Your task to perform on an android device: uninstall "Google Find My Device" Image 0: 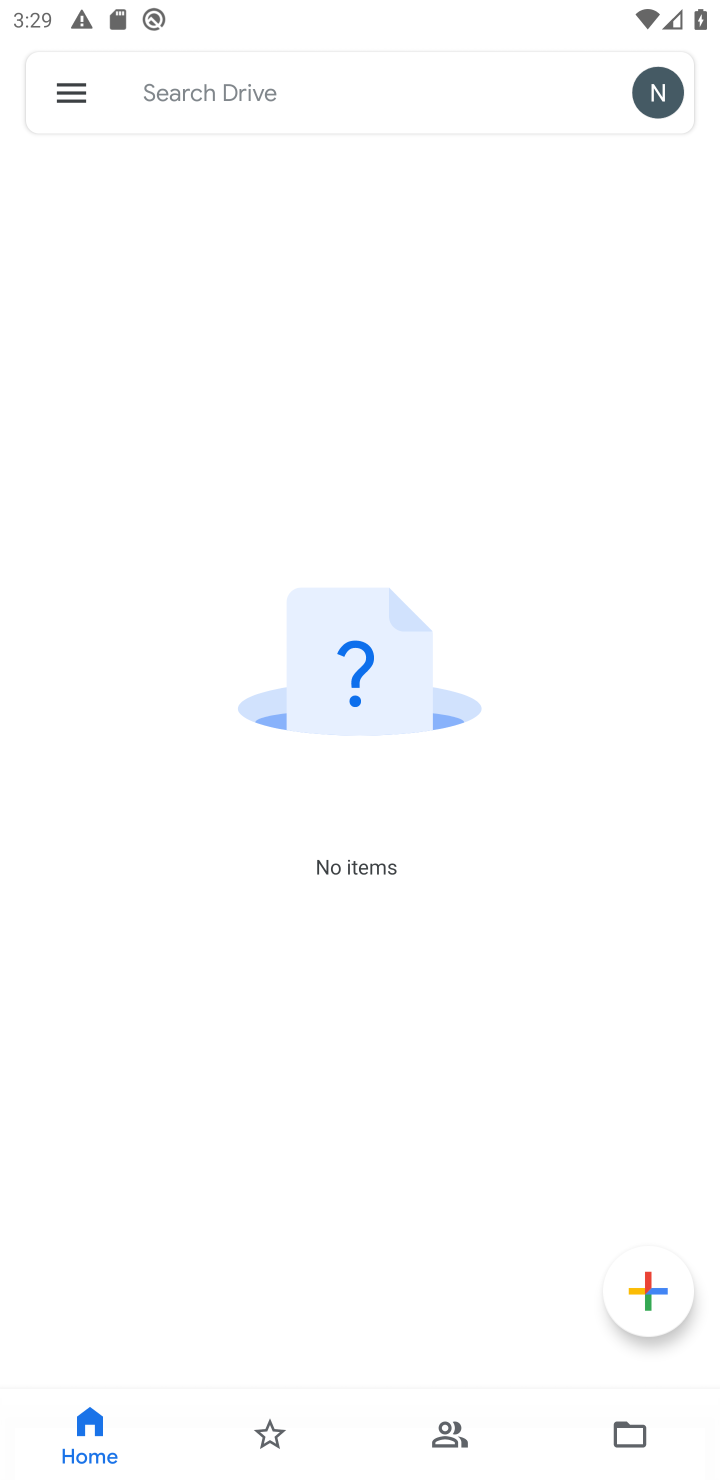
Step 0: press home button
Your task to perform on an android device: uninstall "Google Find My Device" Image 1: 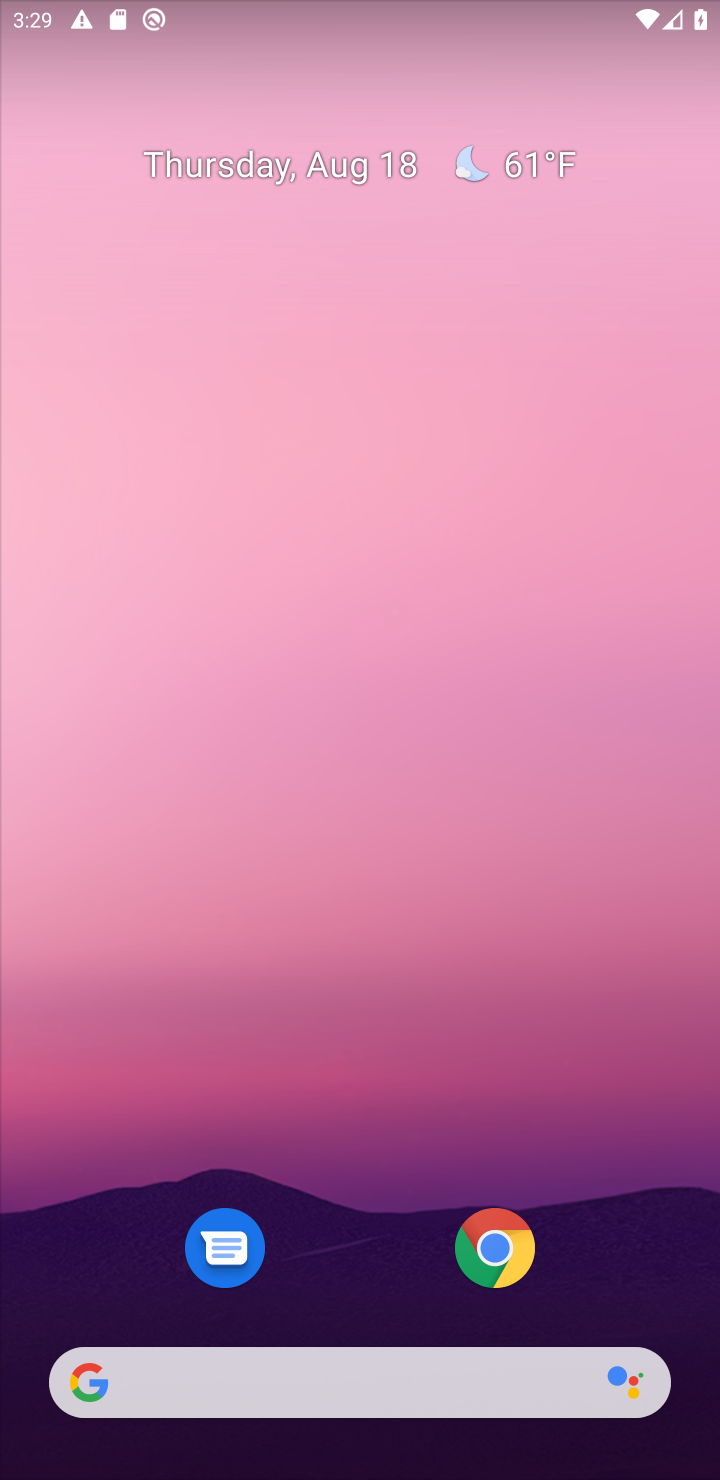
Step 1: click (366, 238)
Your task to perform on an android device: uninstall "Google Find My Device" Image 2: 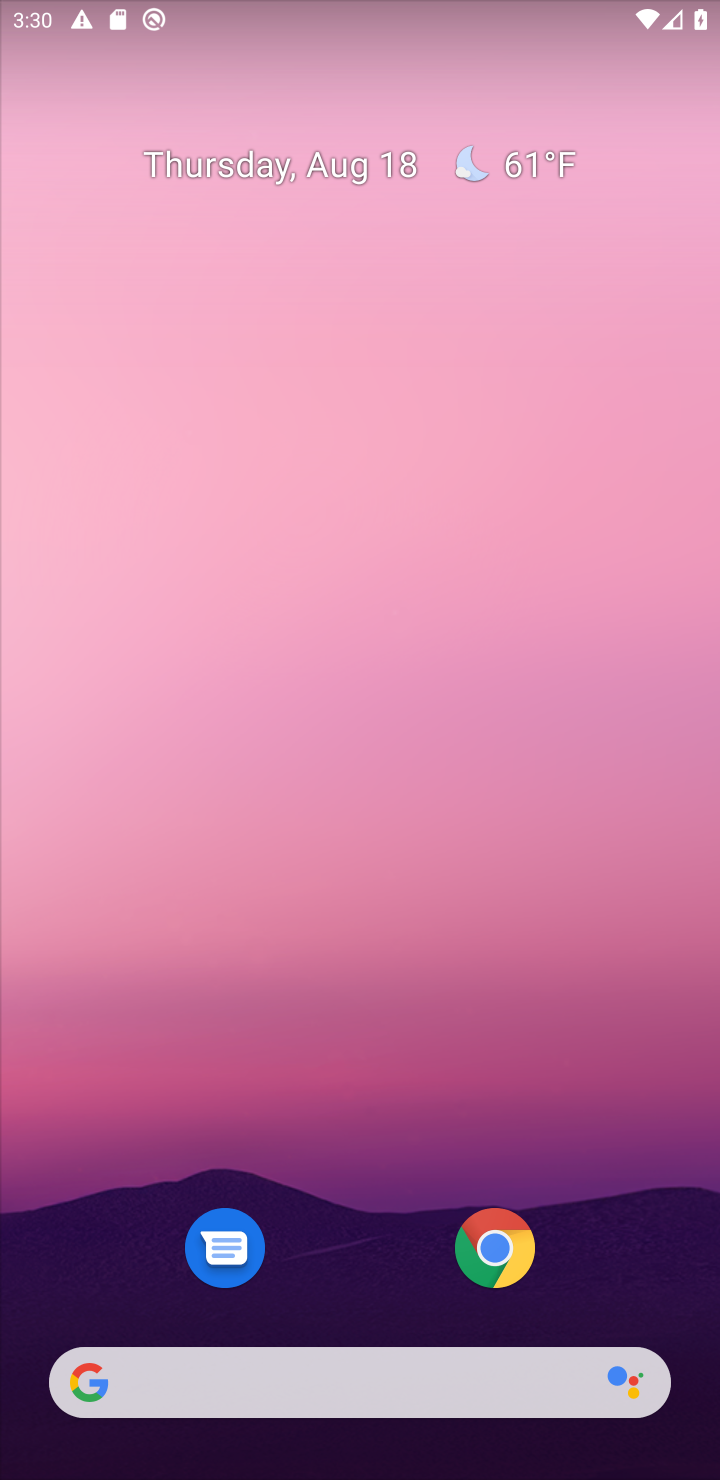
Step 2: drag from (343, 1310) to (204, 211)
Your task to perform on an android device: uninstall "Google Find My Device" Image 3: 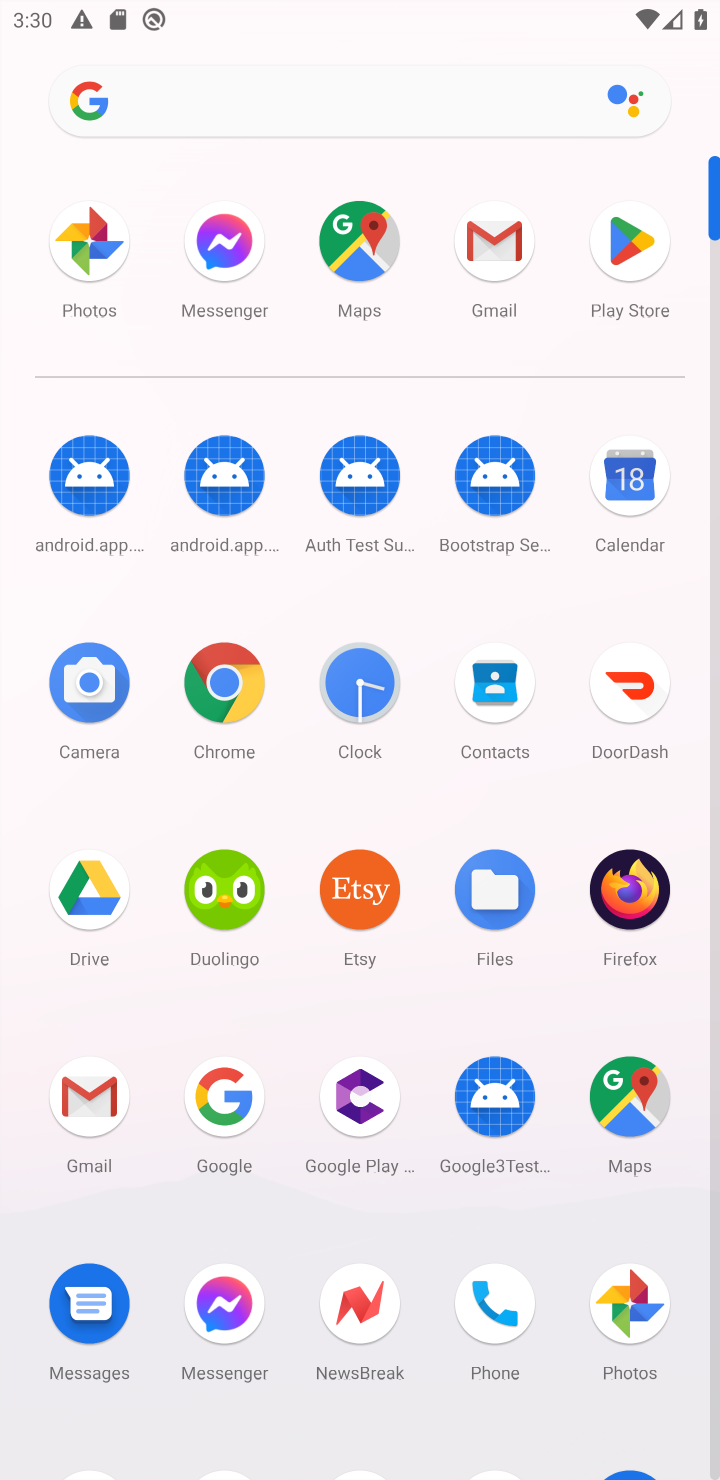
Step 3: click (615, 236)
Your task to perform on an android device: uninstall "Google Find My Device" Image 4: 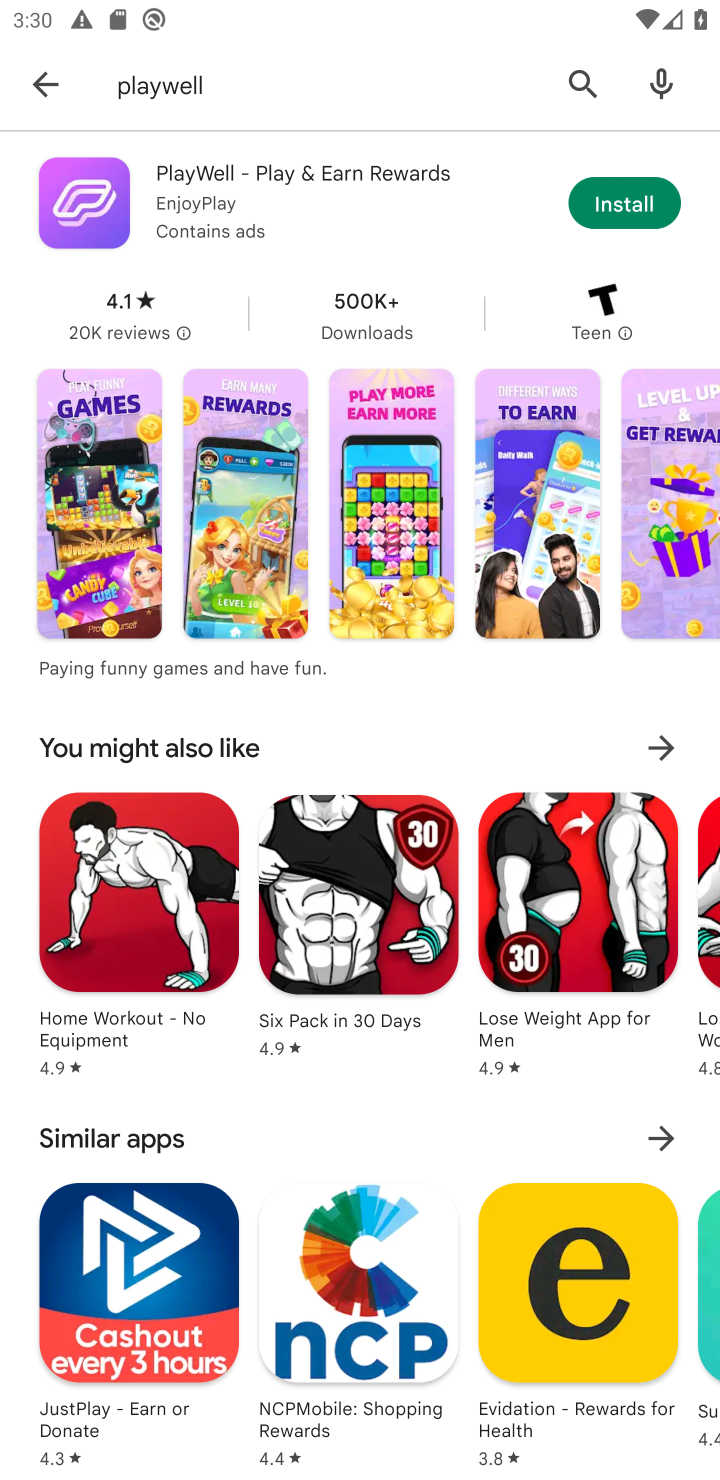
Step 4: click (577, 66)
Your task to perform on an android device: uninstall "Google Find My Device" Image 5: 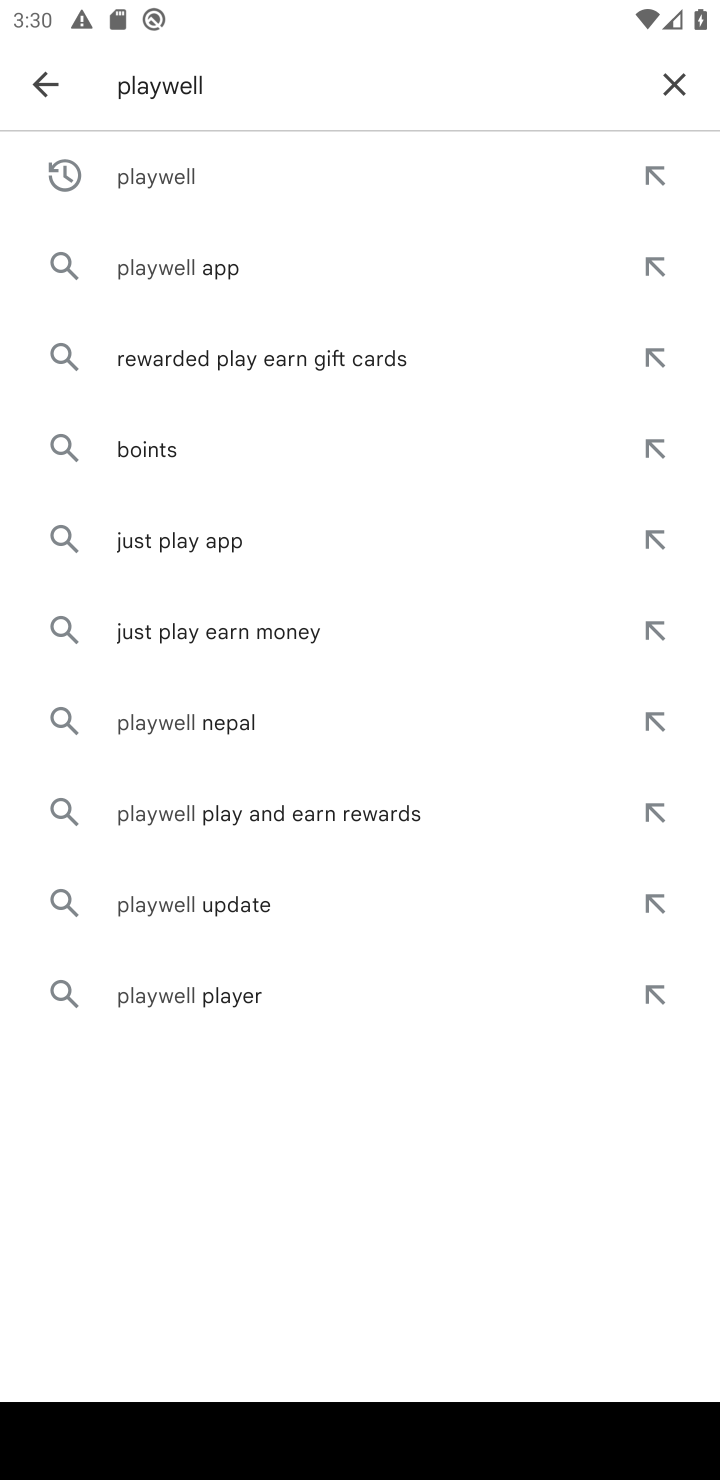
Step 5: click (676, 89)
Your task to perform on an android device: uninstall "Google Find My Device" Image 6: 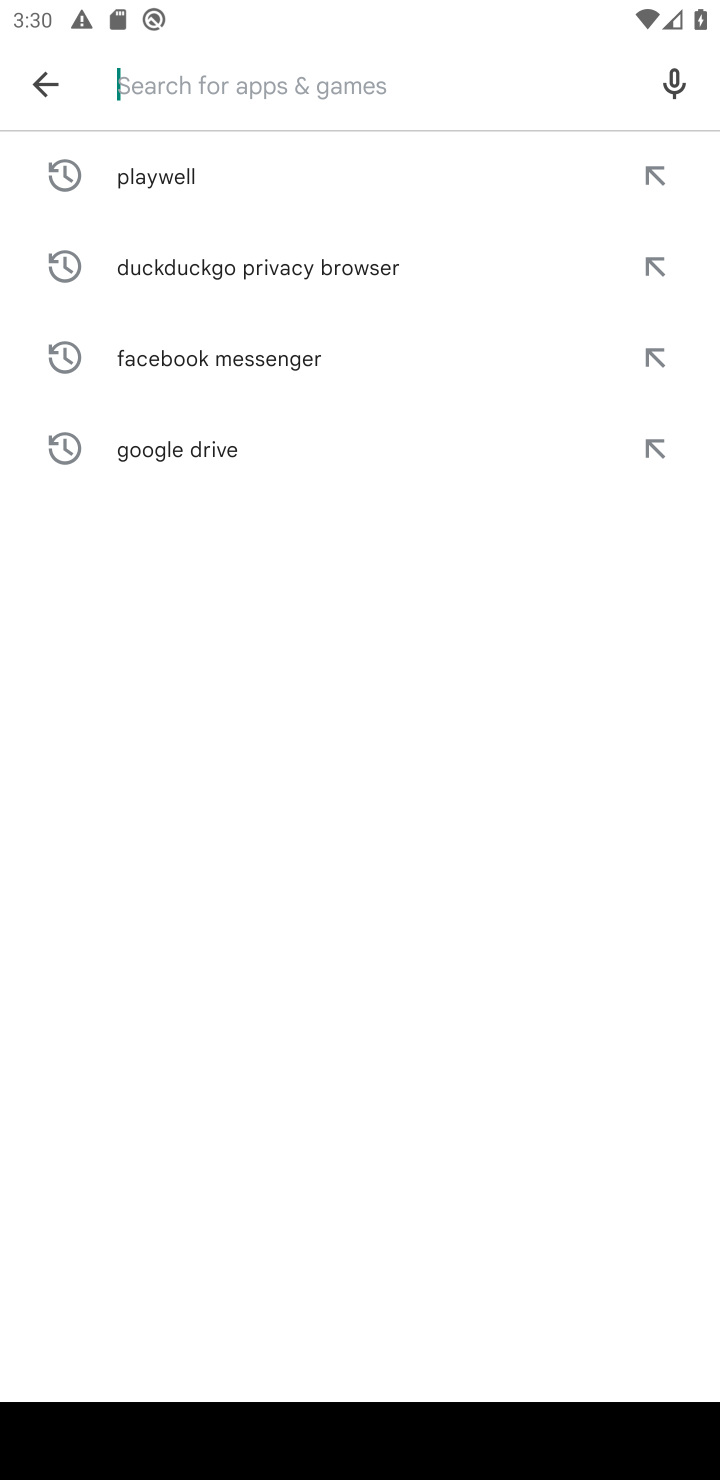
Step 6: type "Google Find My Device"
Your task to perform on an android device: uninstall "Google Find My Device" Image 7: 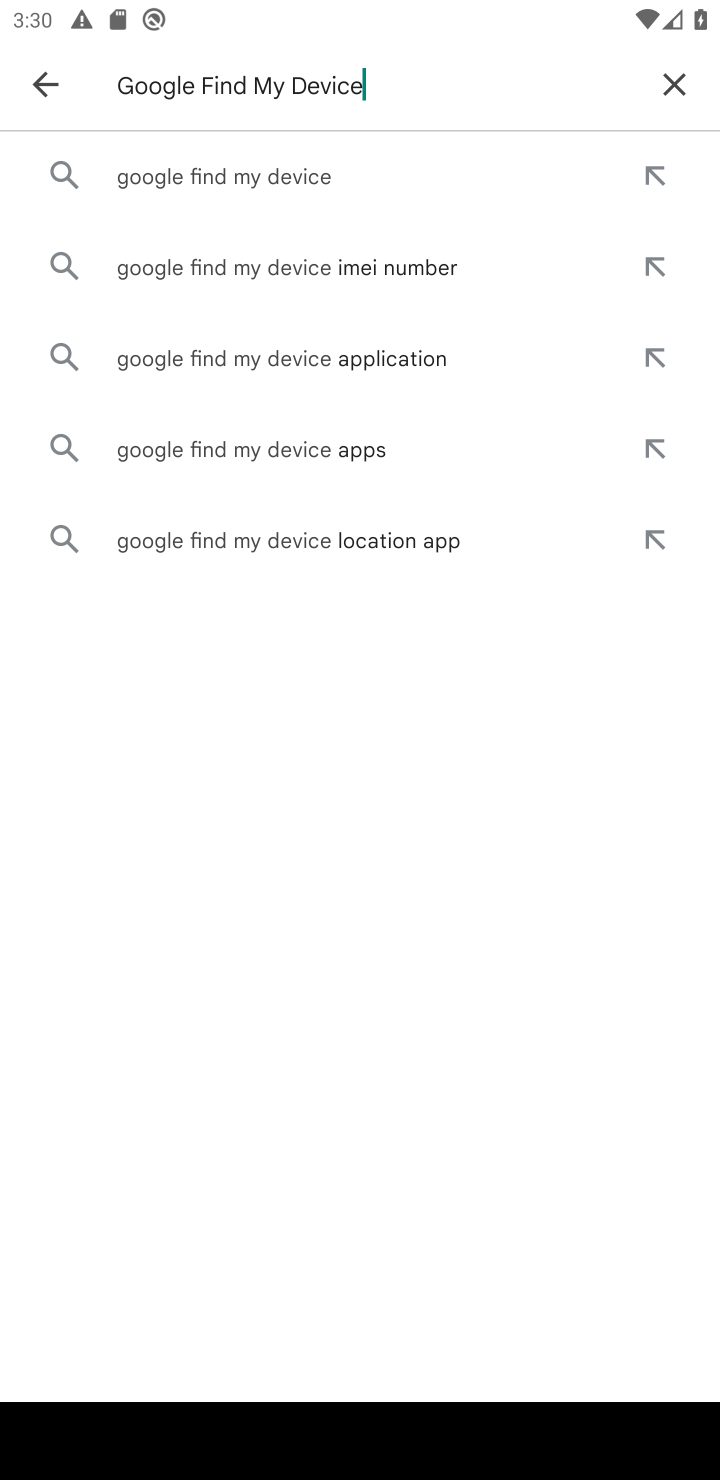
Step 7: click (293, 177)
Your task to perform on an android device: uninstall "Google Find My Device" Image 8: 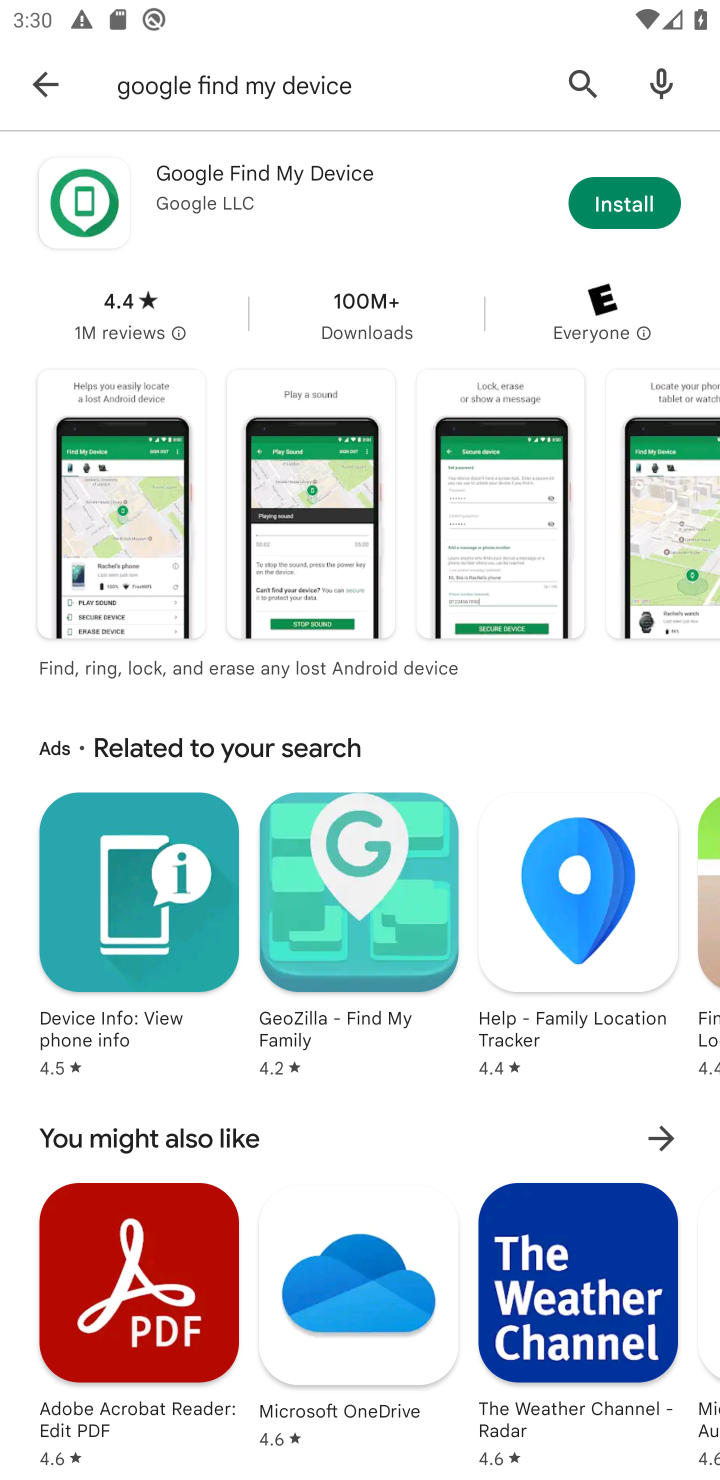
Step 8: click (199, 170)
Your task to perform on an android device: uninstall "Google Find My Device" Image 9: 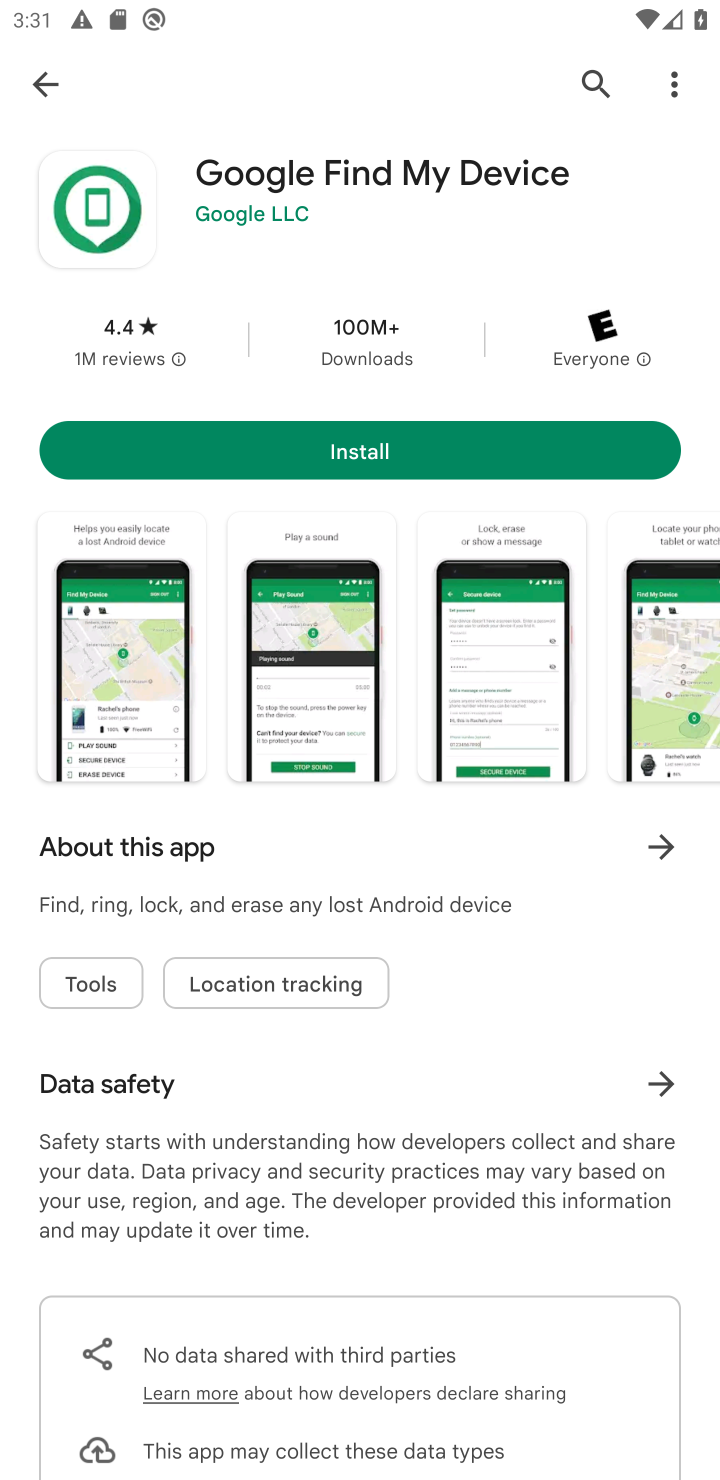
Step 9: task complete